Your task to perform on an android device: clear all cookies in the chrome app Image 0: 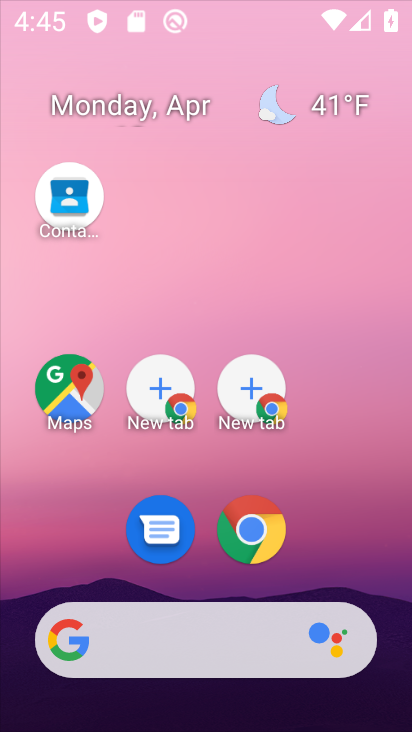
Step 0: drag from (201, 454) to (344, 1)
Your task to perform on an android device: clear all cookies in the chrome app Image 1: 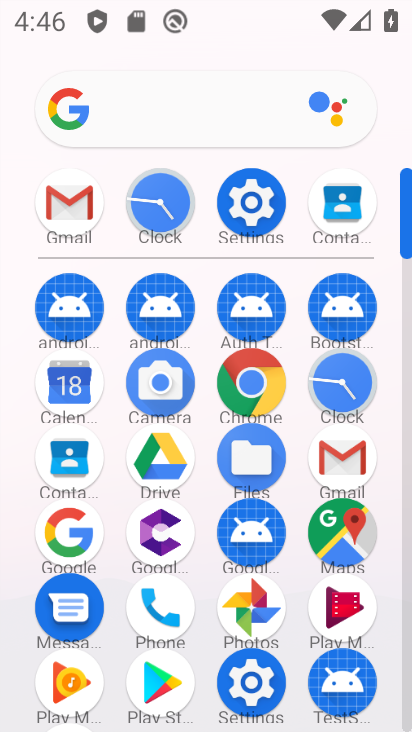
Step 1: click (249, 369)
Your task to perform on an android device: clear all cookies in the chrome app Image 2: 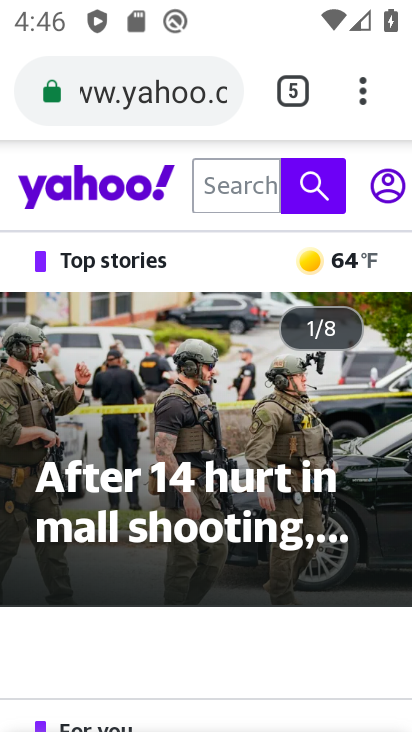
Step 2: click (363, 86)
Your task to perform on an android device: clear all cookies in the chrome app Image 3: 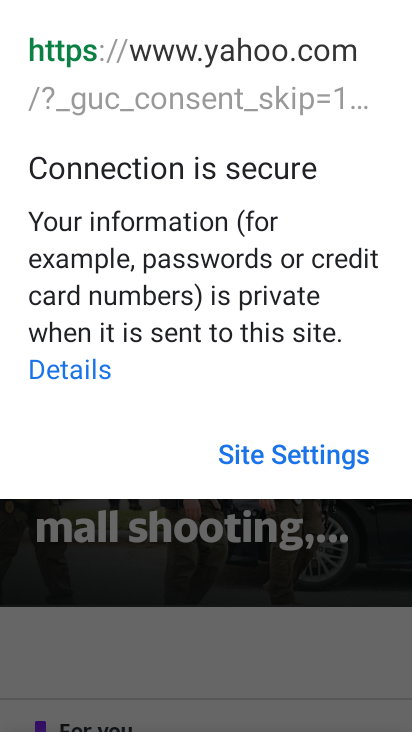
Step 3: click (249, 506)
Your task to perform on an android device: clear all cookies in the chrome app Image 4: 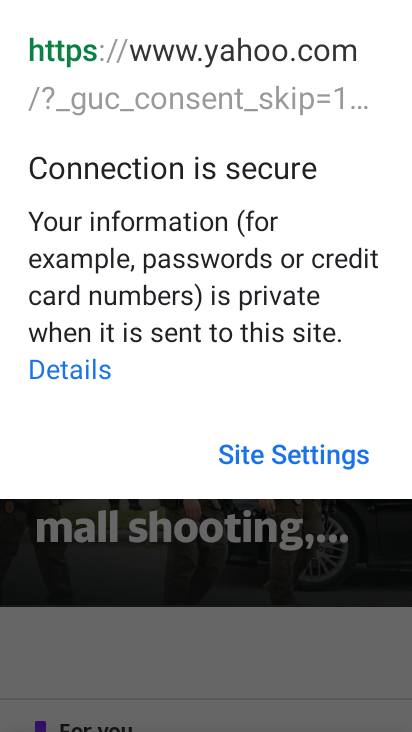
Step 4: click (201, 549)
Your task to perform on an android device: clear all cookies in the chrome app Image 5: 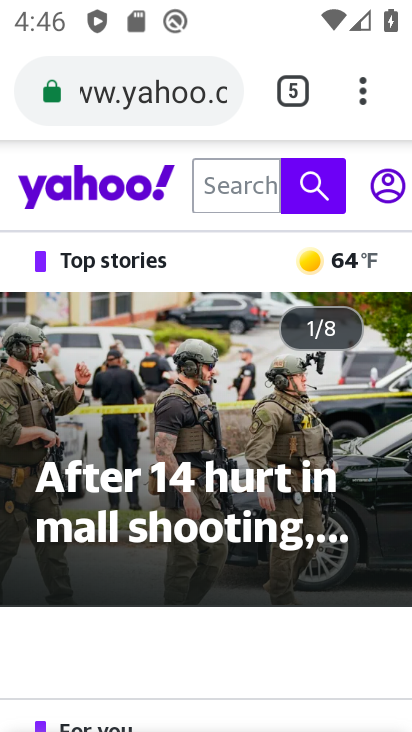
Step 5: drag from (363, 75) to (90, 345)
Your task to perform on an android device: clear all cookies in the chrome app Image 6: 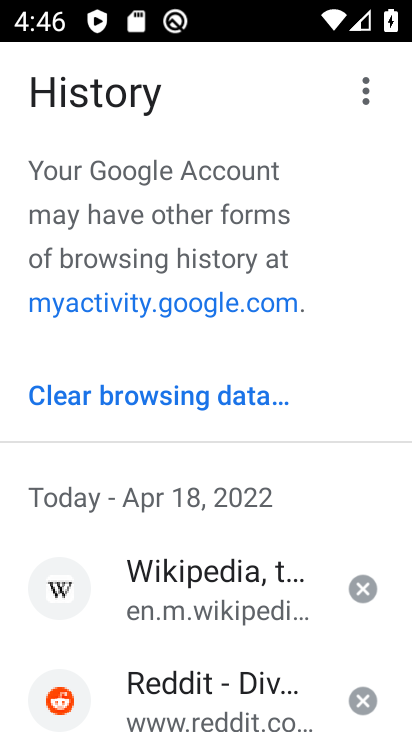
Step 6: click (204, 407)
Your task to perform on an android device: clear all cookies in the chrome app Image 7: 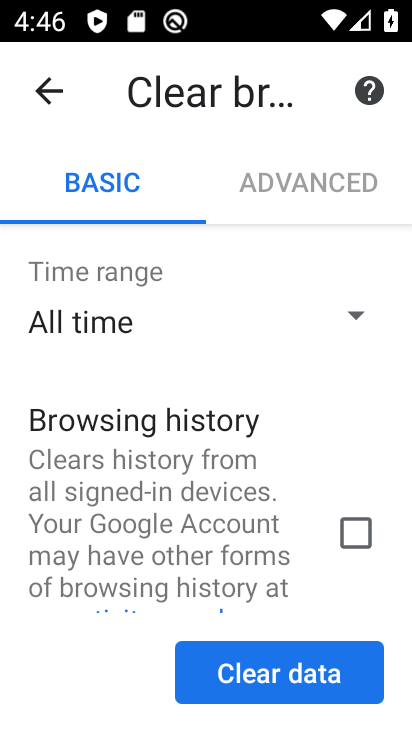
Step 7: drag from (220, 590) to (338, 89)
Your task to perform on an android device: clear all cookies in the chrome app Image 8: 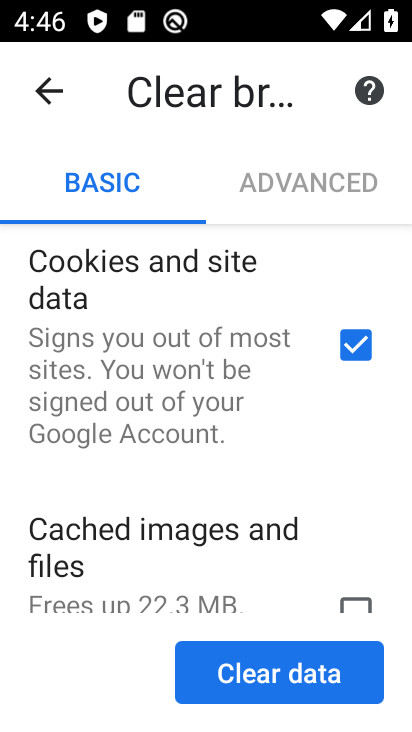
Step 8: click (249, 682)
Your task to perform on an android device: clear all cookies in the chrome app Image 9: 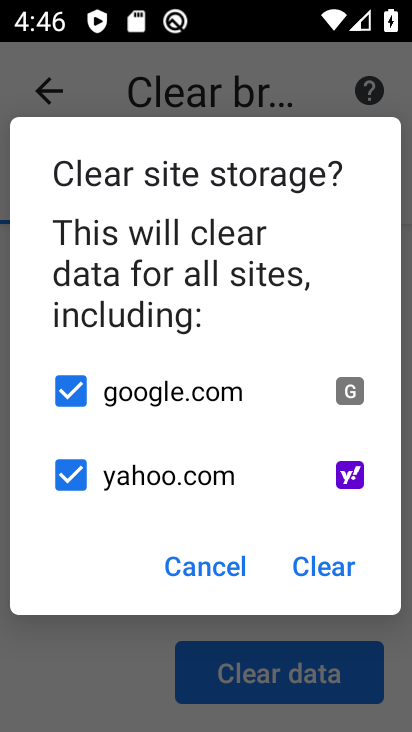
Step 9: click (339, 568)
Your task to perform on an android device: clear all cookies in the chrome app Image 10: 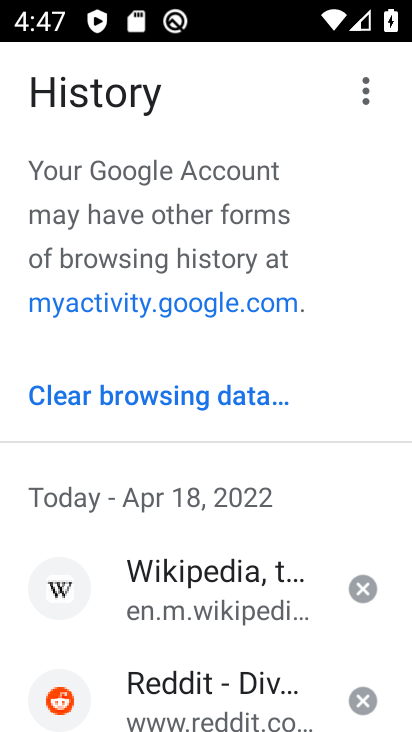
Step 10: task complete